Your task to perform on an android device: toggle pop-ups in chrome Image 0: 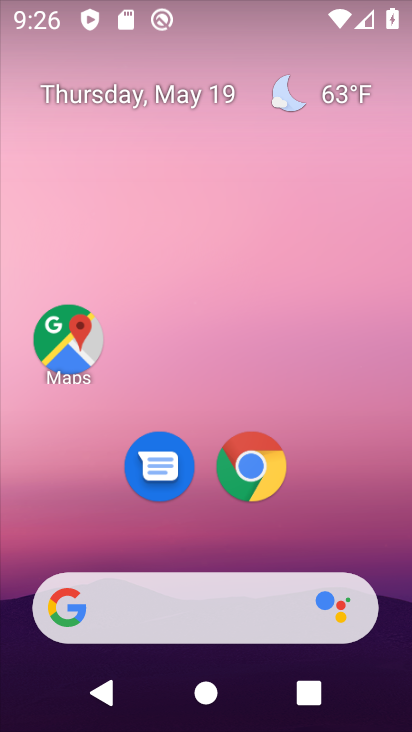
Step 0: drag from (390, 634) to (240, 45)
Your task to perform on an android device: toggle pop-ups in chrome Image 1: 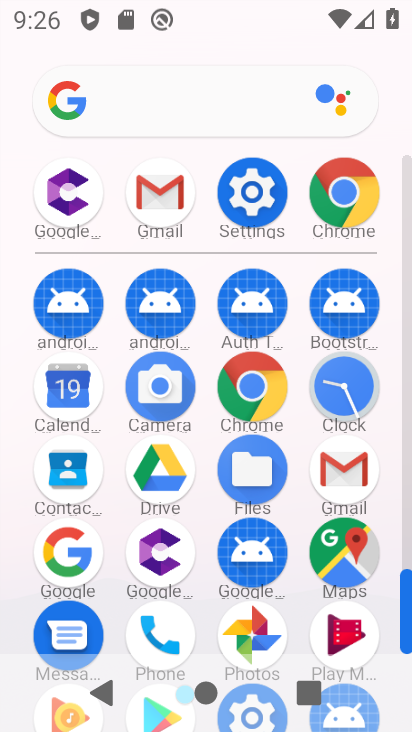
Step 1: click (347, 217)
Your task to perform on an android device: toggle pop-ups in chrome Image 2: 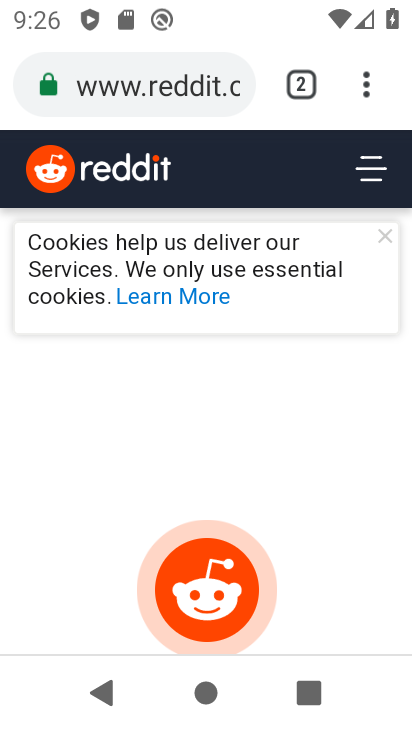
Step 2: press back button
Your task to perform on an android device: toggle pop-ups in chrome Image 3: 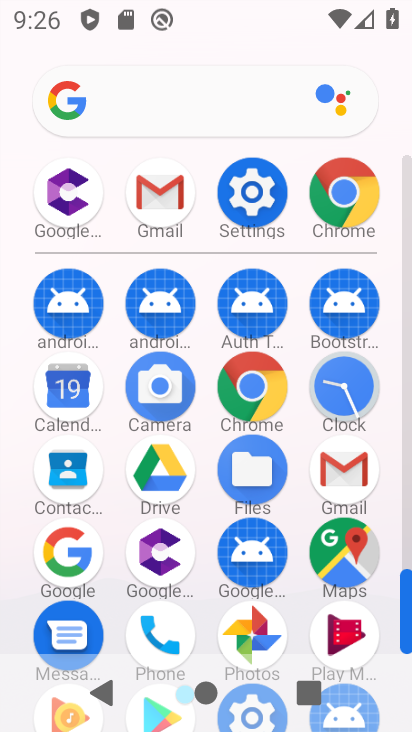
Step 3: click (343, 205)
Your task to perform on an android device: toggle pop-ups in chrome Image 4: 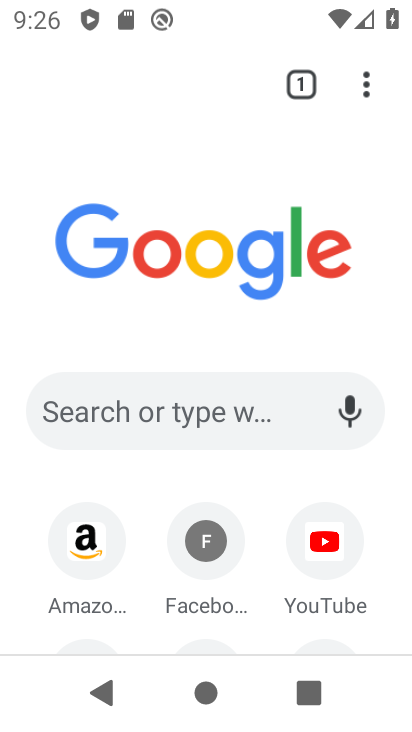
Step 4: click (360, 87)
Your task to perform on an android device: toggle pop-ups in chrome Image 5: 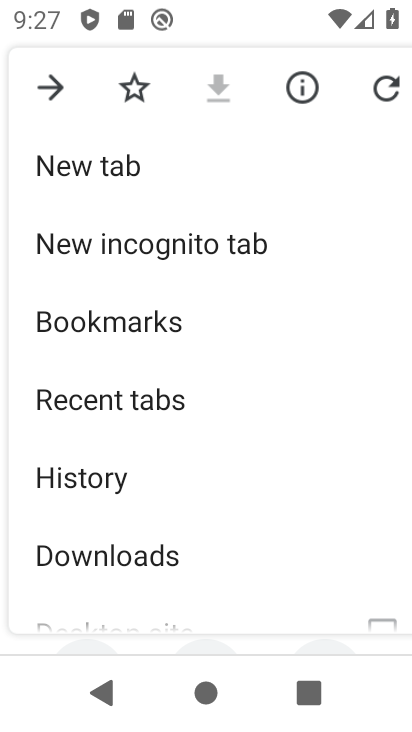
Step 5: drag from (164, 582) to (265, 174)
Your task to perform on an android device: toggle pop-ups in chrome Image 6: 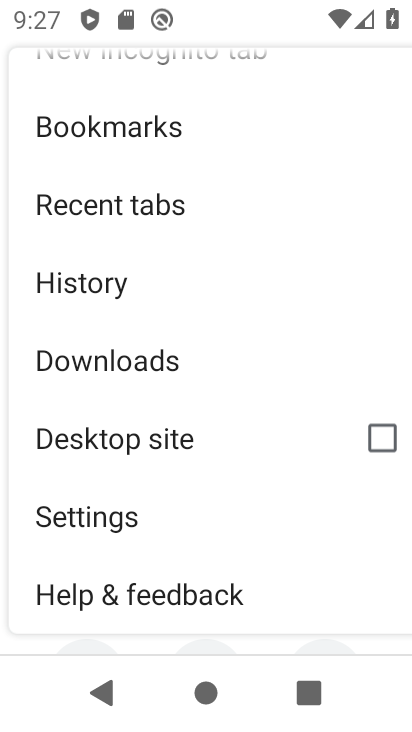
Step 6: click (184, 513)
Your task to perform on an android device: toggle pop-ups in chrome Image 7: 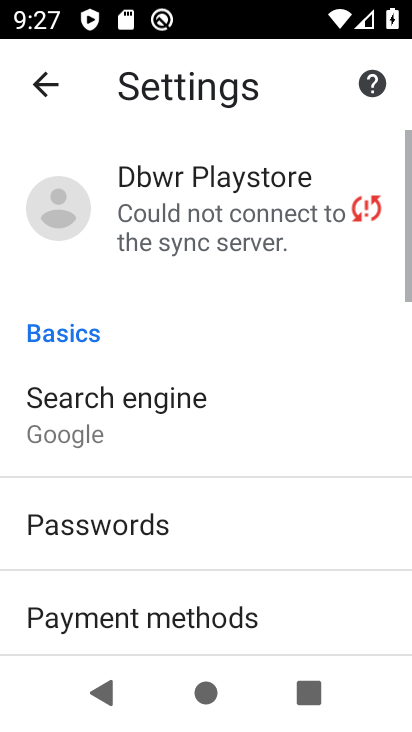
Step 7: drag from (166, 606) to (231, 163)
Your task to perform on an android device: toggle pop-ups in chrome Image 8: 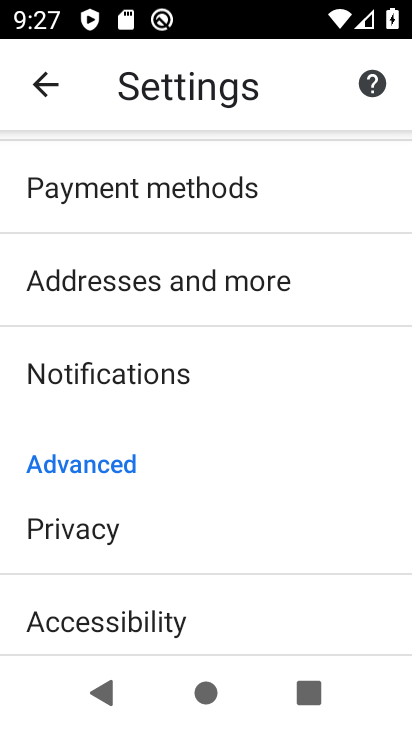
Step 8: drag from (133, 587) to (180, 230)
Your task to perform on an android device: toggle pop-ups in chrome Image 9: 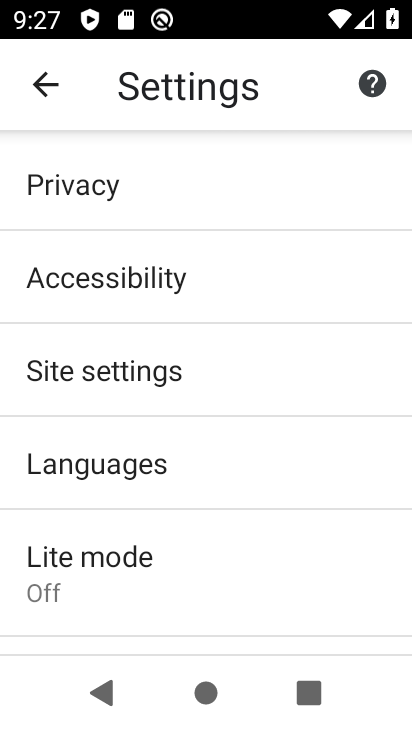
Step 9: click (221, 385)
Your task to perform on an android device: toggle pop-ups in chrome Image 10: 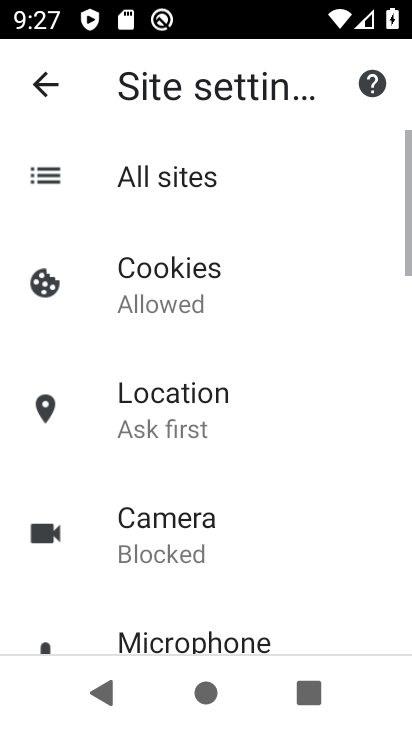
Step 10: drag from (222, 611) to (281, 118)
Your task to perform on an android device: toggle pop-ups in chrome Image 11: 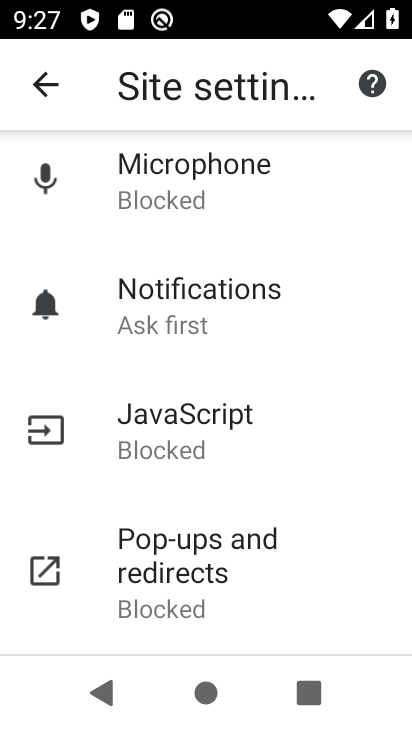
Step 11: click (229, 559)
Your task to perform on an android device: toggle pop-ups in chrome Image 12: 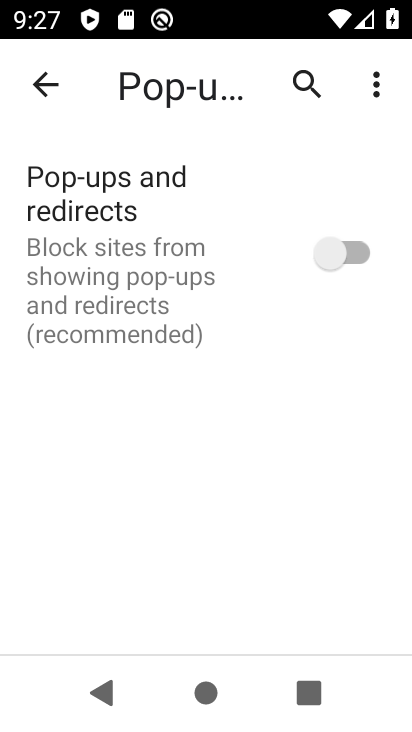
Step 12: click (293, 262)
Your task to perform on an android device: toggle pop-ups in chrome Image 13: 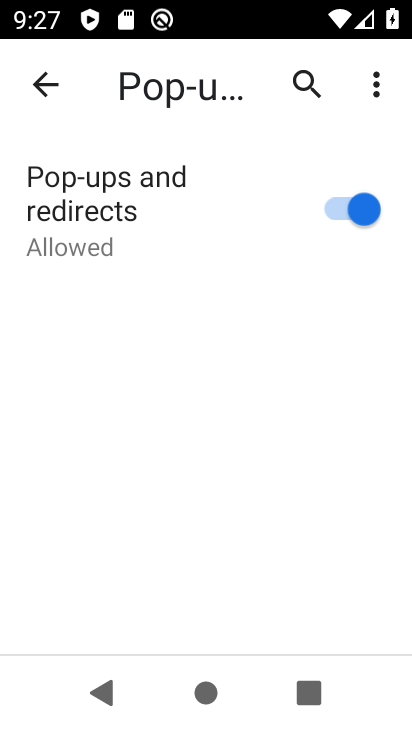
Step 13: task complete